Your task to perform on an android device: change the clock display to analog Image 0: 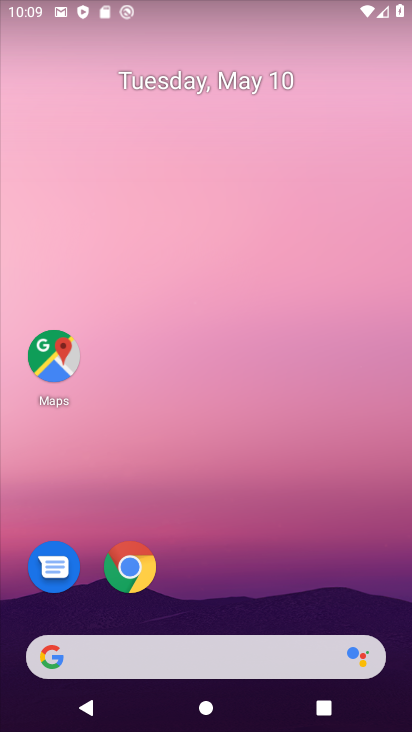
Step 0: drag from (199, 617) to (265, 42)
Your task to perform on an android device: change the clock display to analog Image 1: 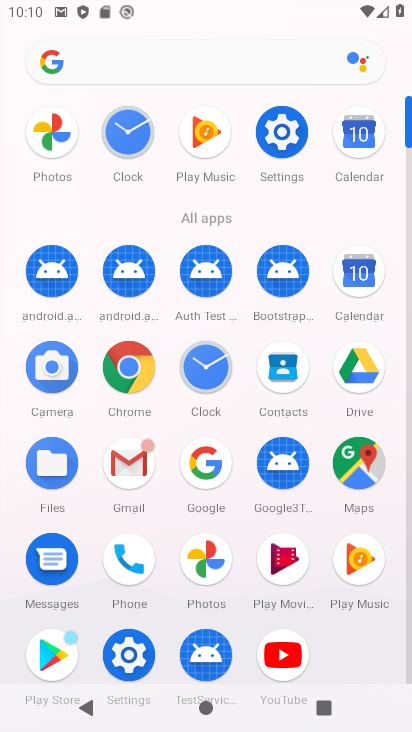
Step 1: click (135, 140)
Your task to perform on an android device: change the clock display to analog Image 2: 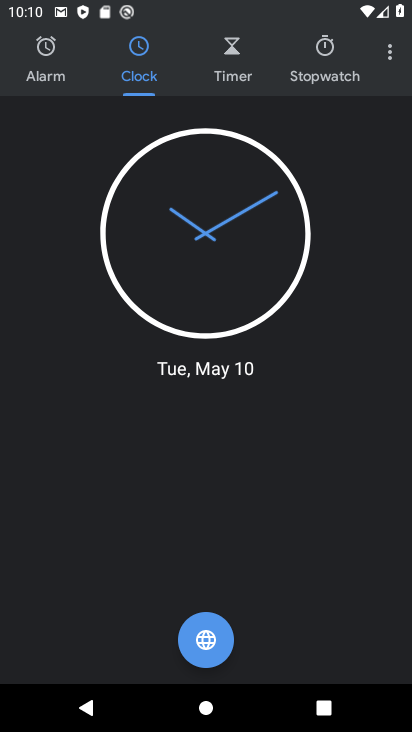
Step 2: click (392, 51)
Your task to perform on an android device: change the clock display to analog Image 3: 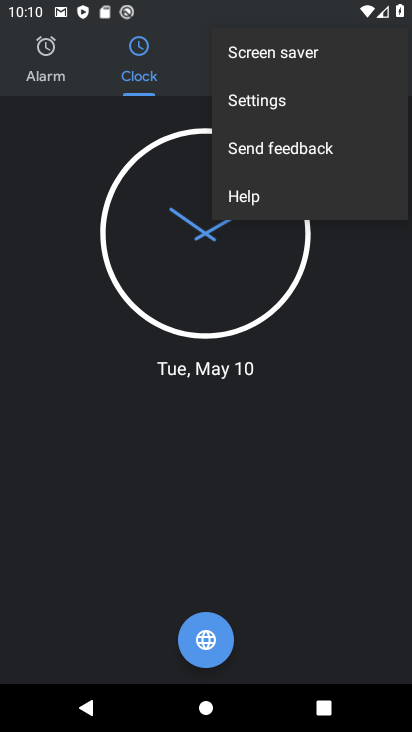
Step 3: click (265, 101)
Your task to perform on an android device: change the clock display to analog Image 4: 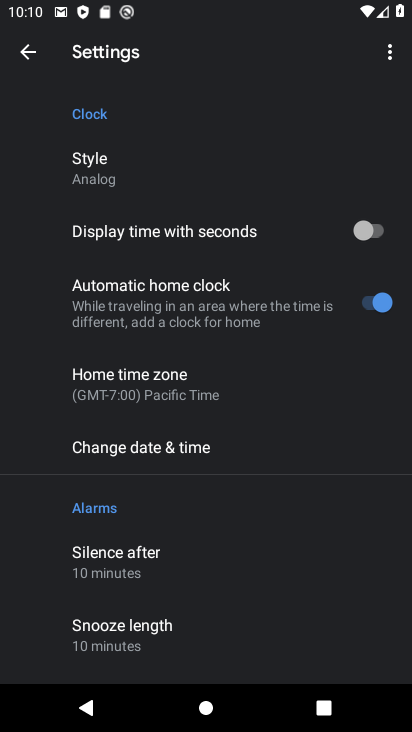
Step 4: click (106, 169)
Your task to perform on an android device: change the clock display to analog Image 5: 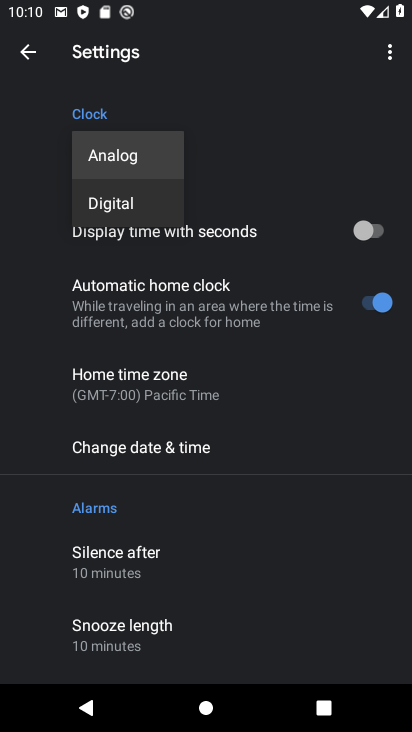
Step 5: task complete